Your task to perform on an android device: turn on javascript in the chrome app Image 0: 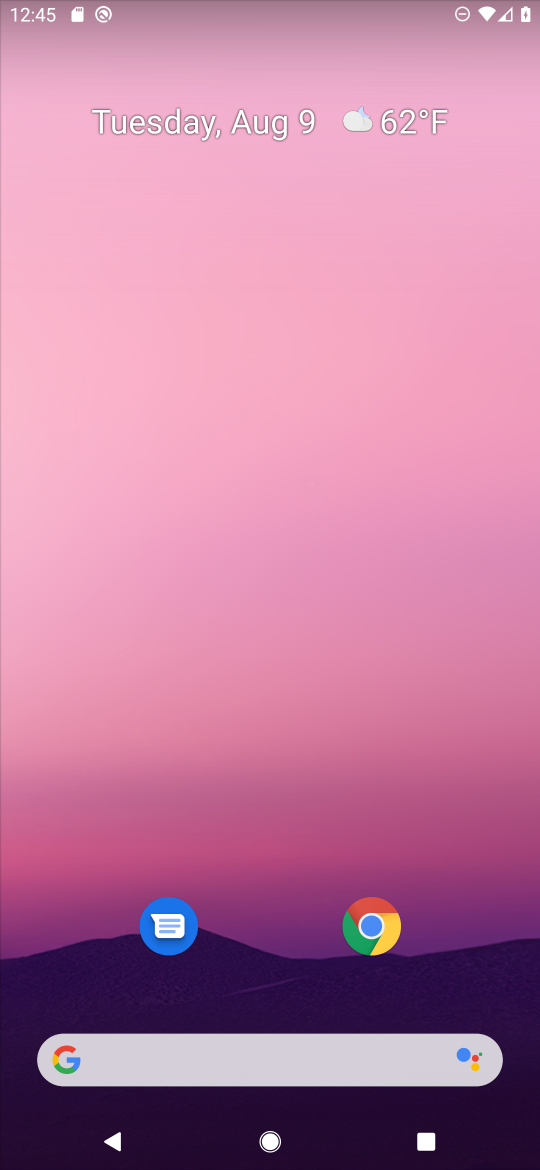
Step 0: click (382, 926)
Your task to perform on an android device: turn on javascript in the chrome app Image 1: 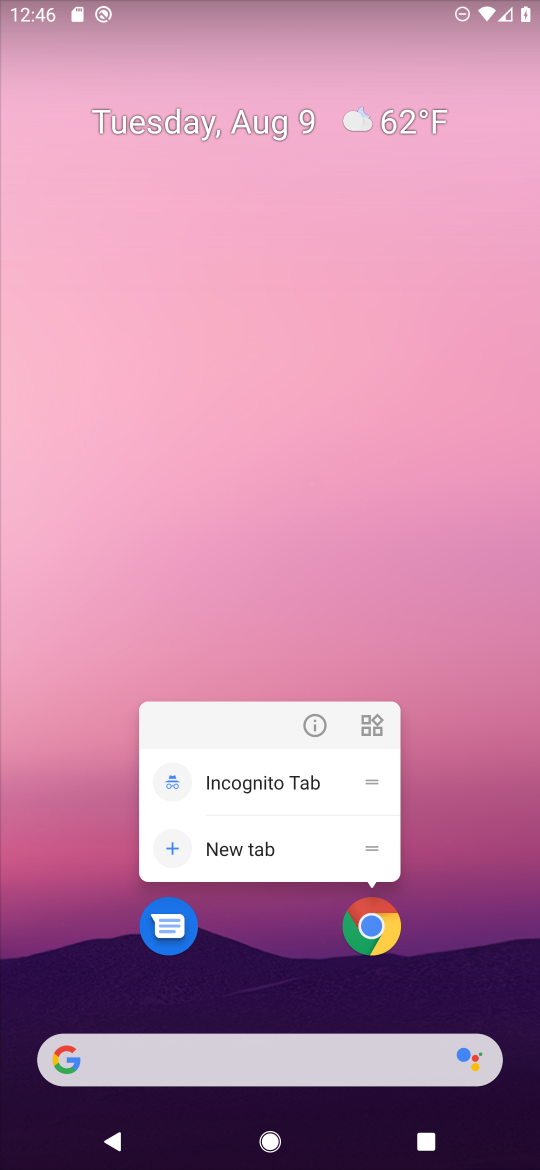
Step 1: click (356, 948)
Your task to perform on an android device: turn on javascript in the chrome app Image 2: 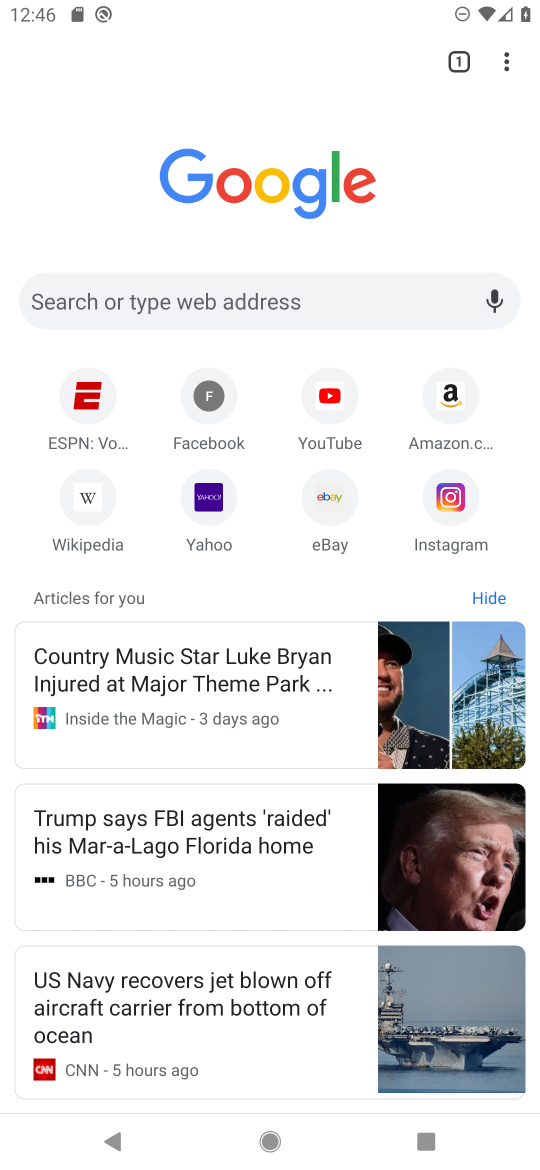
Step 2: click (504, 63)
Your task to perform on an android device: turn on javascript in the chrome app Image 3: 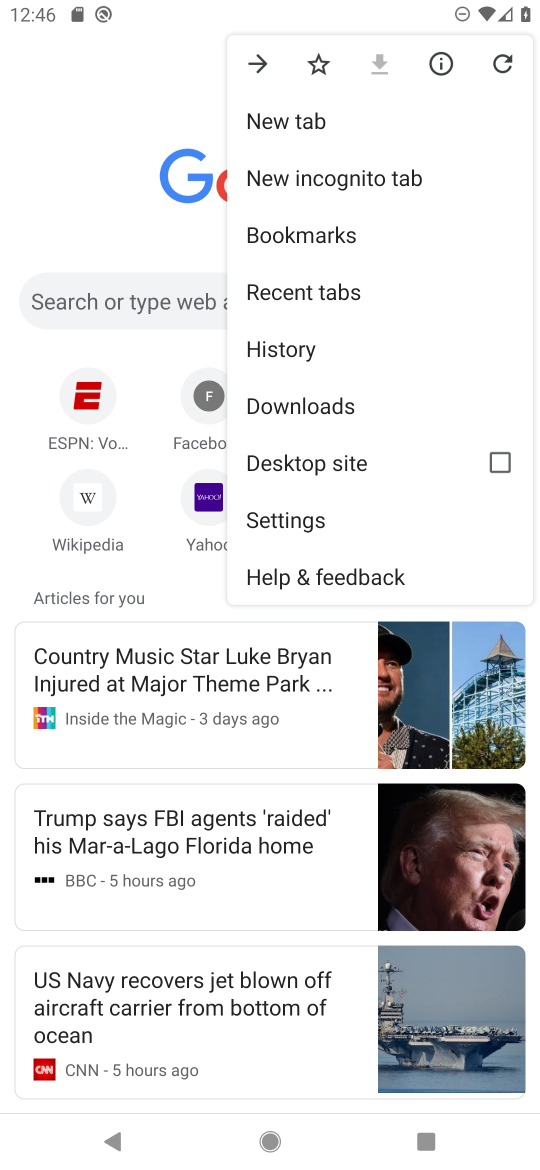
Step 3: click (281, 528)
Your task to perform on an android device: turn on javascript in the chrome app Image 4: 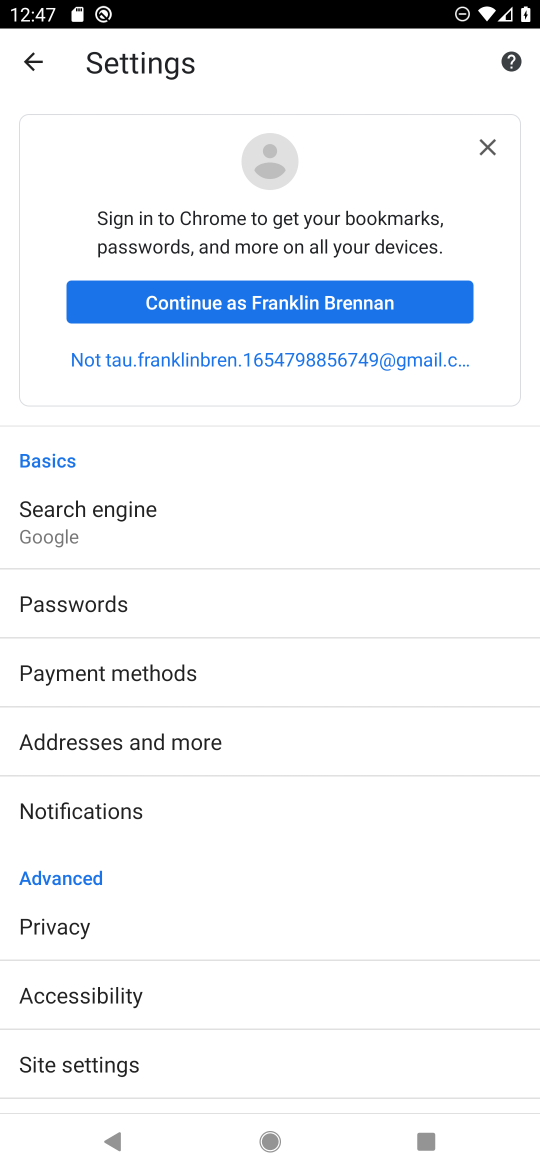
Step 4: task complete